Your task to perform on an android device: toggle airplane mode Image 0: 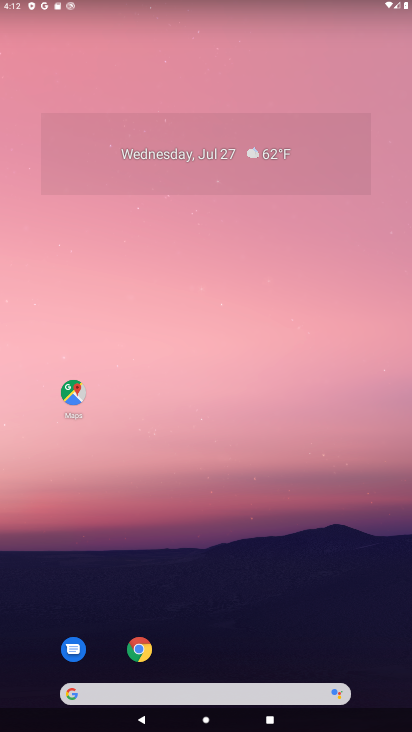
Step 0: drag from (345, 3) to (344, 363)
Your task to perform on an android device: toggle airplane mode Image 1: 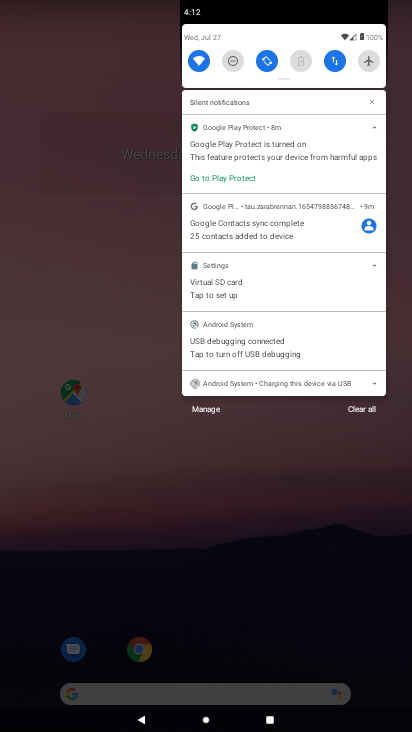
Step 1: task complete